Your task to perform on an android device: Open the phone app and click the voicemail tab. Image 0: 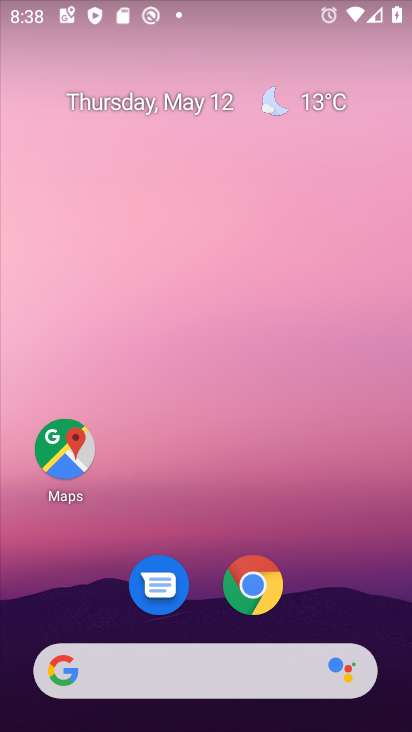
Step 0: drag from (237, 500) to (188, 37)
Your task to perform on an android device: Open the phone app and click the voicemail tab. Image 1: 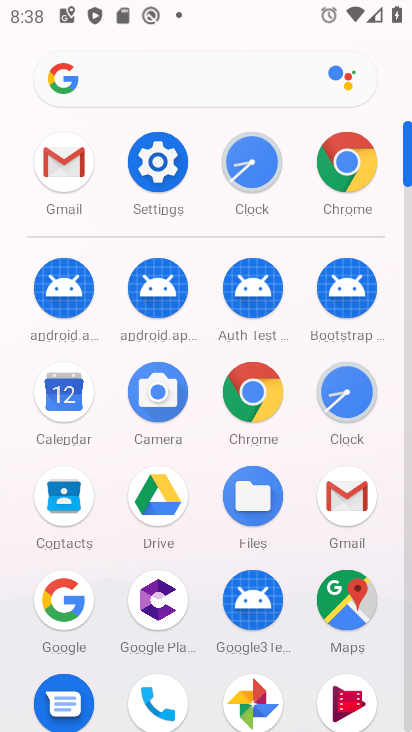
Step 1: click (168, 692)
Your task to perform on an android device: Open the phone app and click the voicemail tab. Image 2: 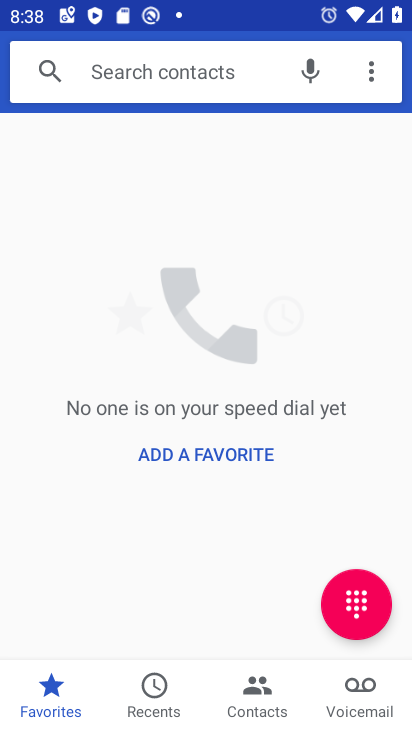
Step 2: click (362, 699)
Your task to perform on an android device: Open the phone app and click the voicemail tab. Image 3: 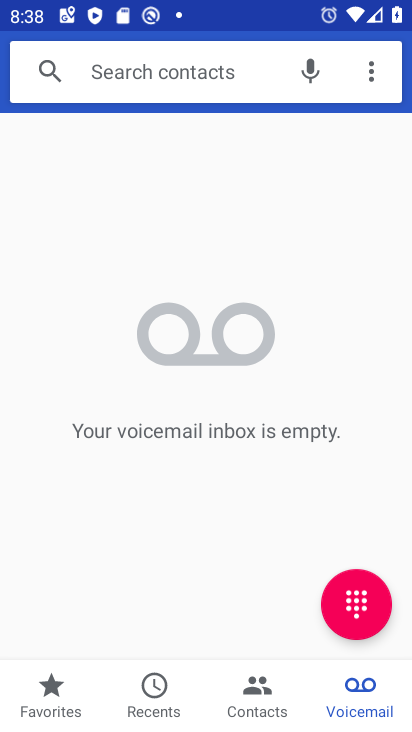
Step 3: task complete